Your task to perform on an android device: turn on wifi Image 0: 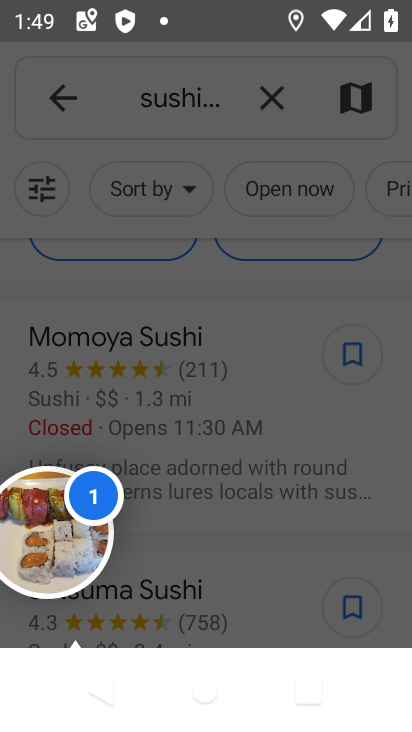
Step 0: press home button
Your task to perform on an android device: turn on wifi Image 1: 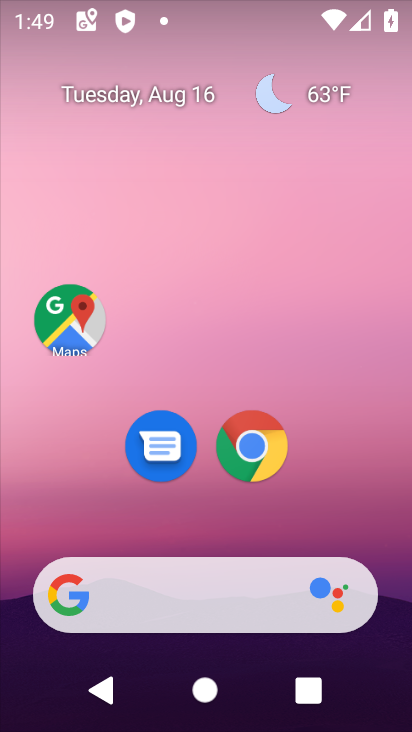
Step 1: drag from (211, 540) to (223, 8)
Your task to perform on an android device: turn on wifi Image 2: 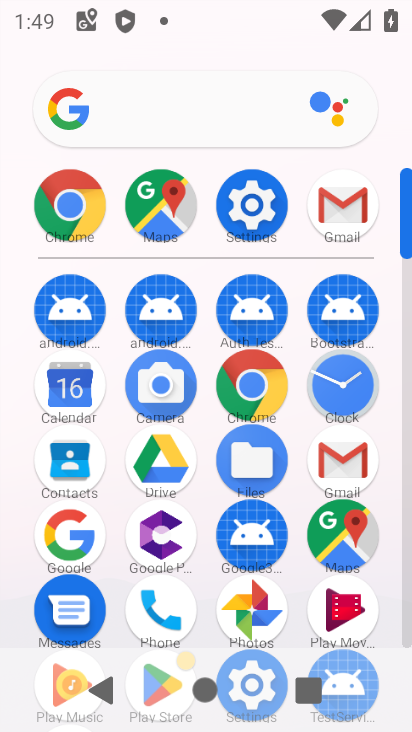
Step 2: click (250, 198)
Your task to perform on an android device: turn on wifi Image 3: 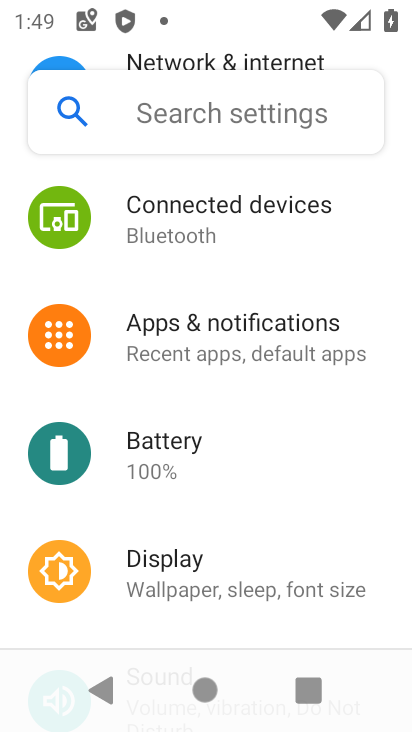
Step 3: drag from (179, 228) to (204, 621)
Your task to perform on an android device: turn on wifi Image 4: 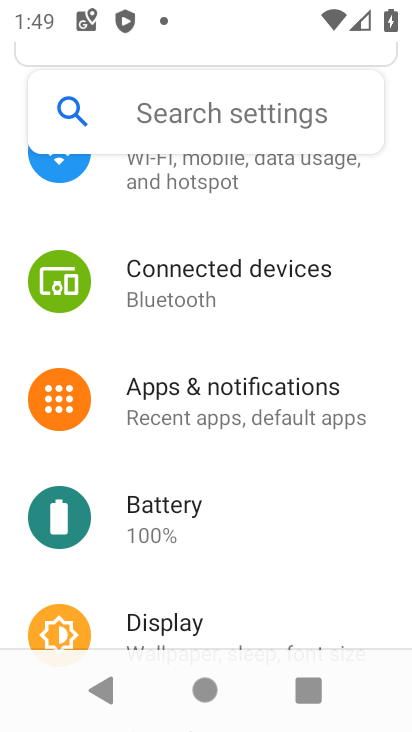
Step 4: click (108, 172)
Your task to perform on an android device: turn on wifi Image 5: 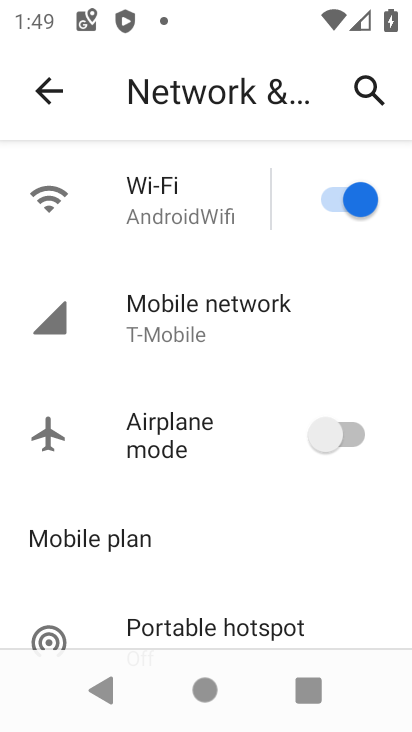
Step 5: task complete